Your task to perform on an android device: change notifications settings Image 0: 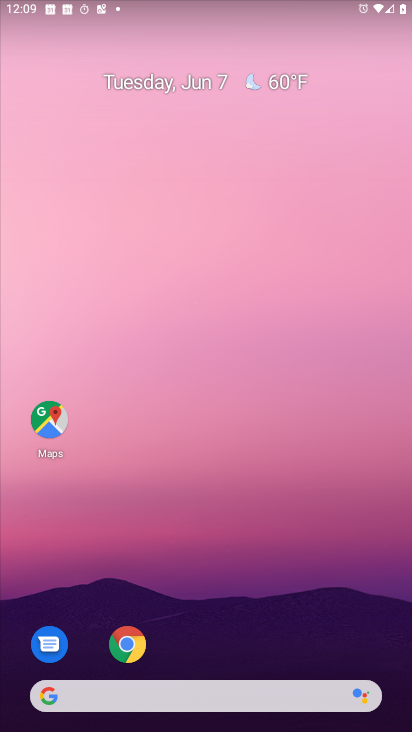
Step 0: drag from (108, 713) to (113, 57)
Your task to perform on an android device: change notifications settings Image 1: 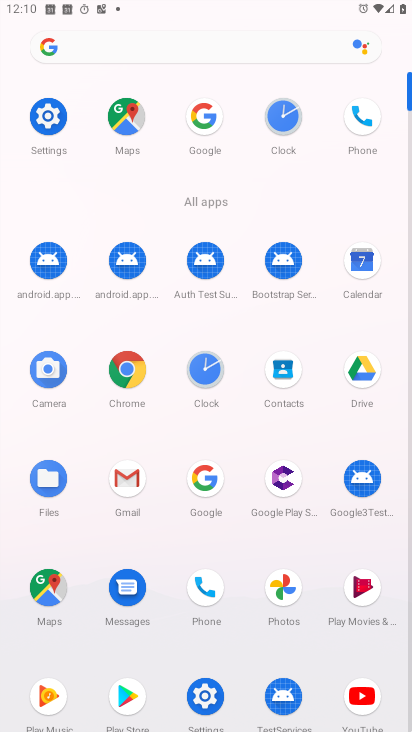
Step 1: click (49, 123)
Your task to perform on an android device: change notifications settings Image 2: 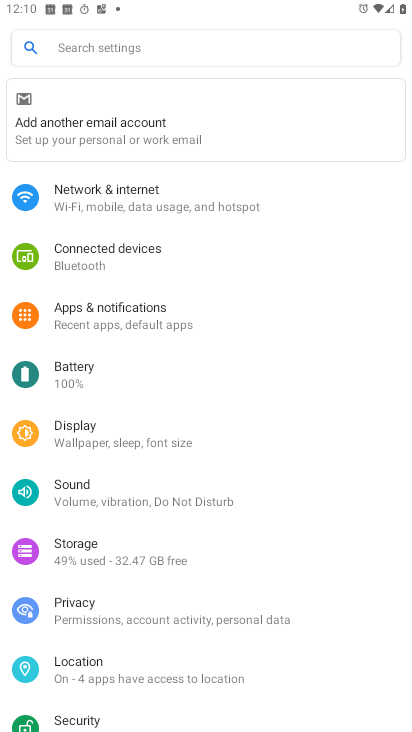
Step 2: click (190, 317)
Your task to perform on an android device: change notifications settings Image 3: 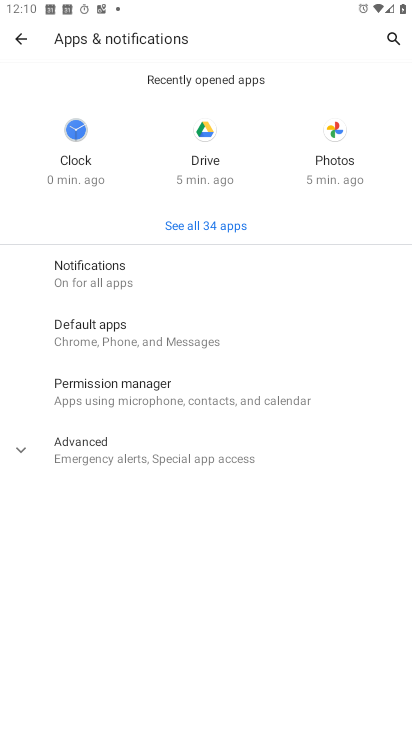
Step 3: click (159, 453)
Your task to perform on an android device: change notifications settings Image 4: 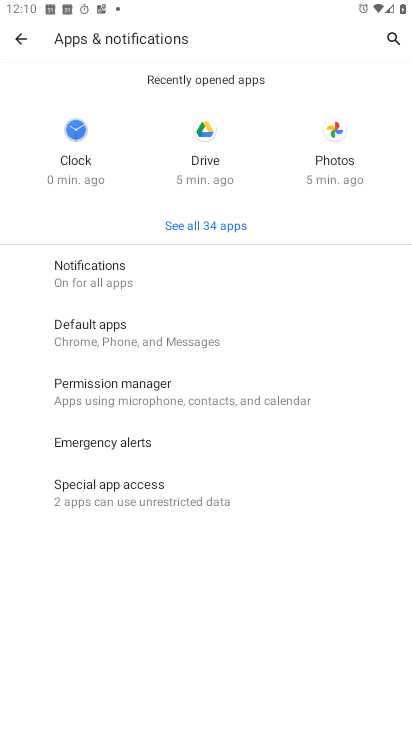
Step 4: click (118, 284)
Your task to perform on an android device: change notifications settings Image 5: 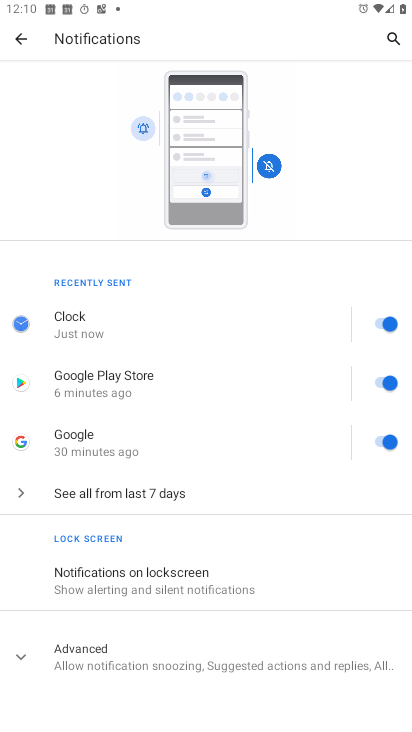
Step 5: drag from (209, 632) to (222, 246)
Your task to perform on an android device: change notifications settings Image 6: 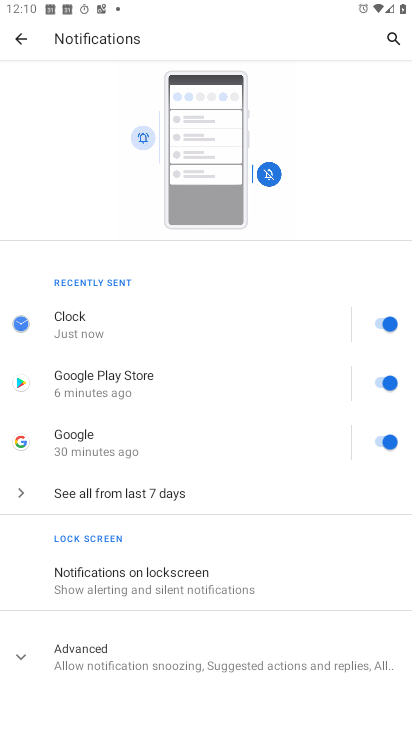
Step 6: click (231, 660)
Your task to perform on an android device: change notifications settings Image 7: 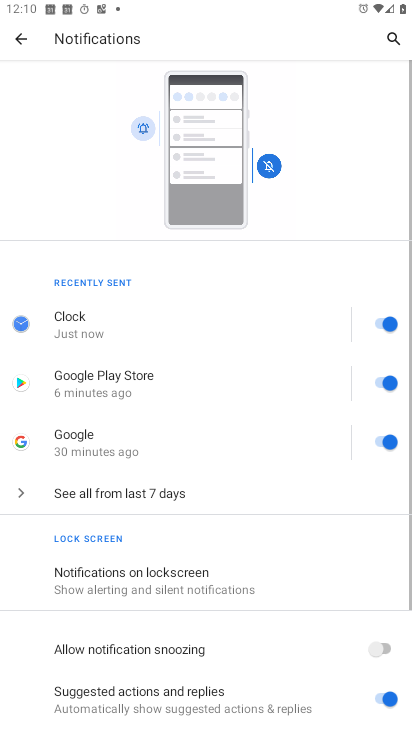
Step 7: drag from (231, 657) to (258, 351)
Your task to perform on an android device: change notifications settings Image 8: 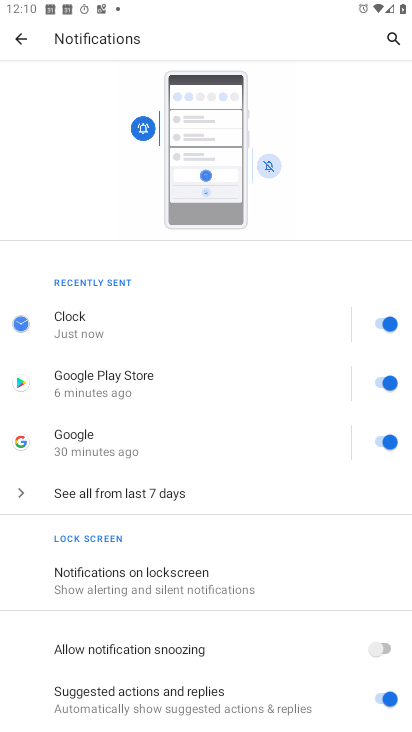
Step 8: click (178, 584)
Your task to perform on an android device: change notifications settings Image 9: 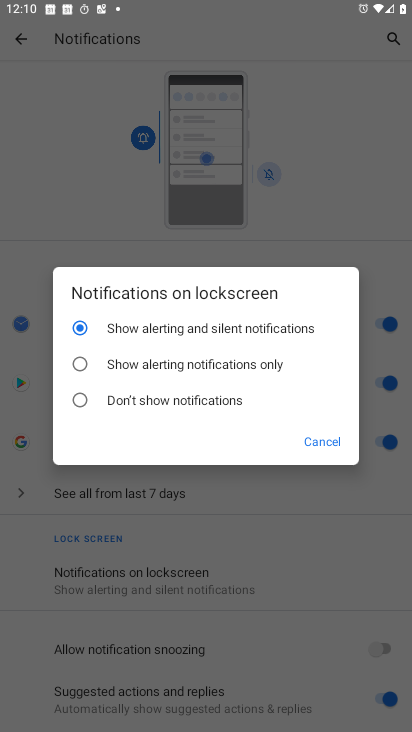
Step 9: click (163, 407)
Your task to perform on an android device: change notifications settings Image 10: 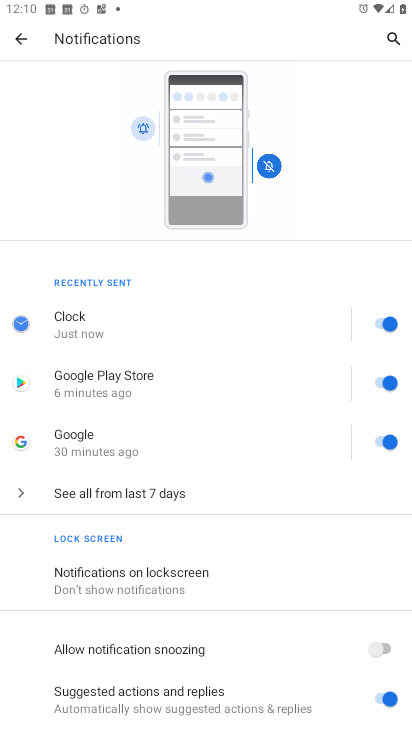
Step 10: task complete